Your task to perform on an android device: allow cookies in the chrome app Image 0: 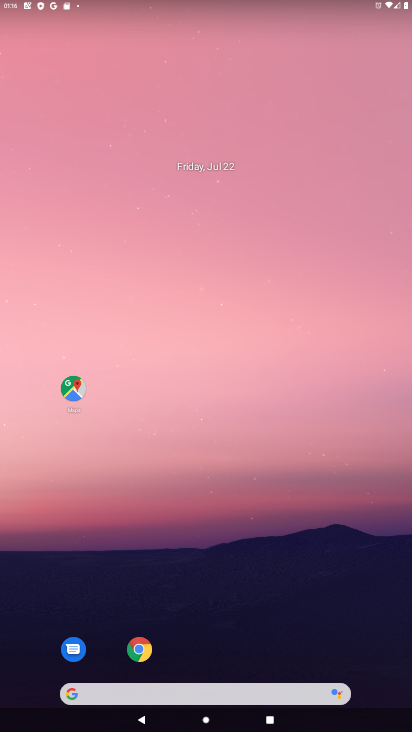
Step 0: drag from (285, 624) to (326, 69)
Your task to perform on an android device: allow cookies in the chrome app Image 1: 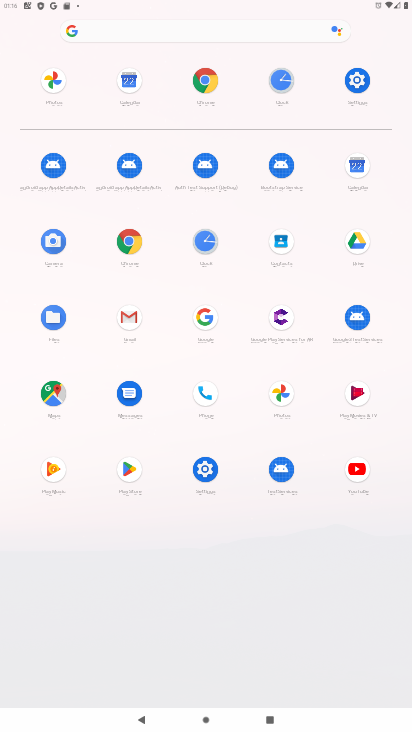
Step 1: click (205, 79)
Your task to perform on an android device: allow cookies in the chrome app Image 2: 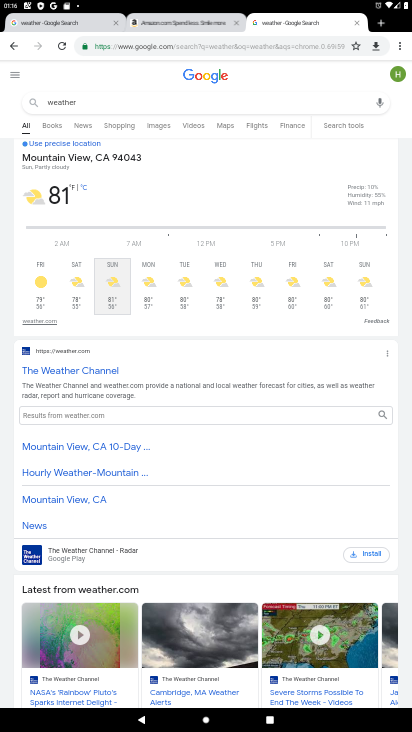
Step 2: drag from (399, 38) to (306, 308)
Your task to perform on an android device: allow cookies in the chrome app Image 3: 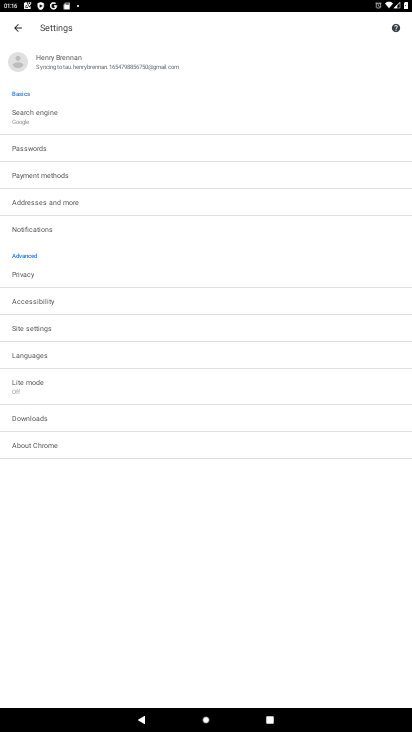
Step 3: click (50, 333)
Your task to perform on an android device: allow cookies in the chrome app Image 4: 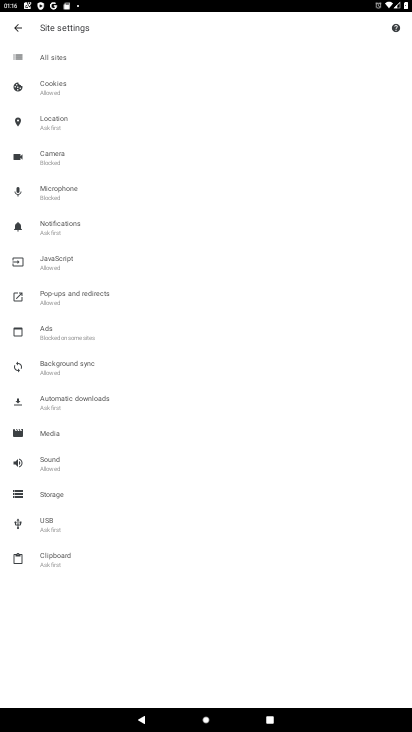
Step 4: click (55, 86)
Your task to perform on an android device: allow cookies in the chrome app Image 5: 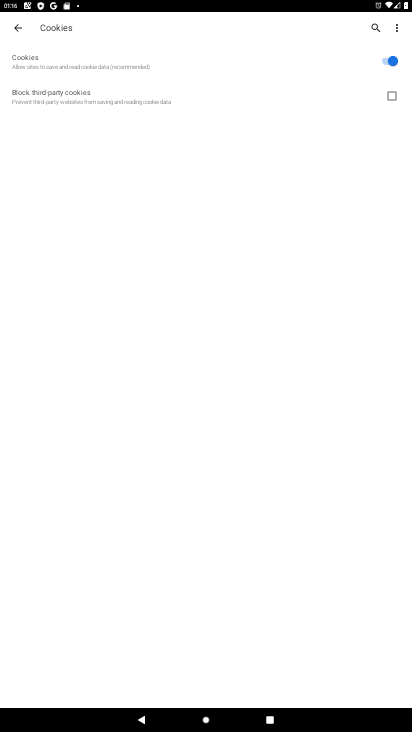
Step 5: task complete